Your task to perform on an android device: toggle airplane mode Image 0: 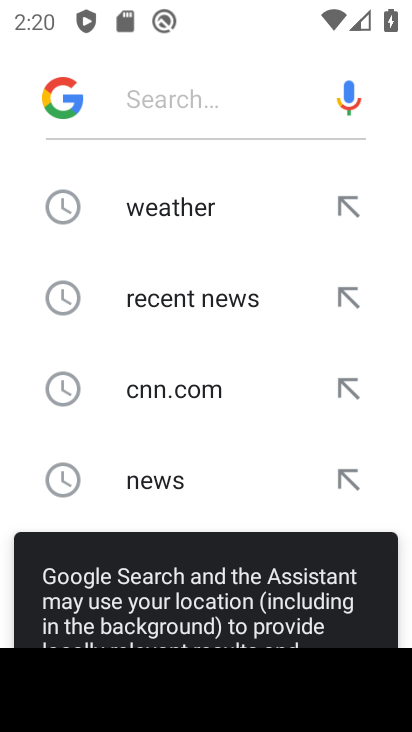
Step 0: press home button
Your task to perform on an android device: toggle airplane mode Image 1: 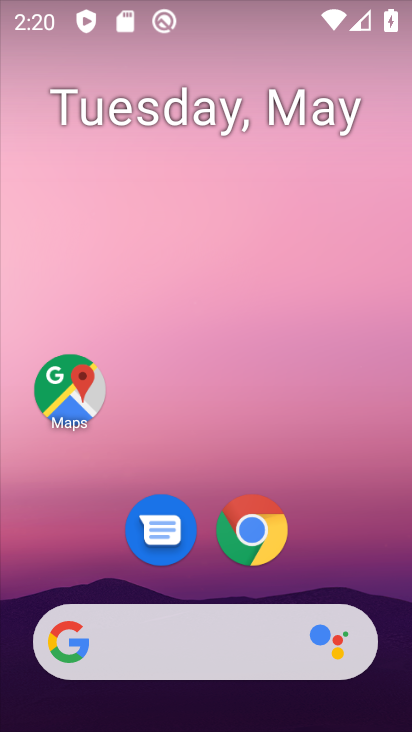
Step 1: drag from (184, 577) to (237, 152)
Your task to perform on an android device: toggle airplane mode Image 2: 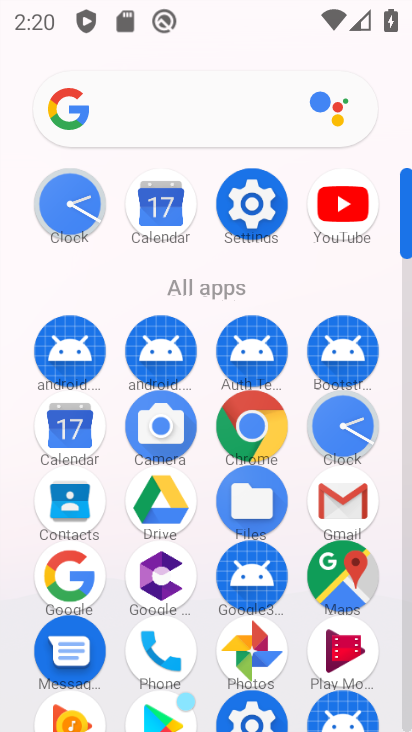
Step 2: click (231, 180)
Your task to perform on an android device: toggle airplane mode Image 3: 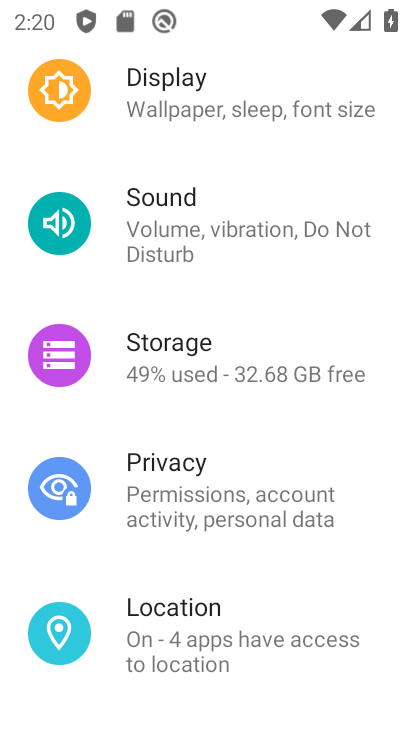
Step 3: drag from (229, 182) to (263, 579)
Your task to perform on an android device: toggle airplane mode Image 4: 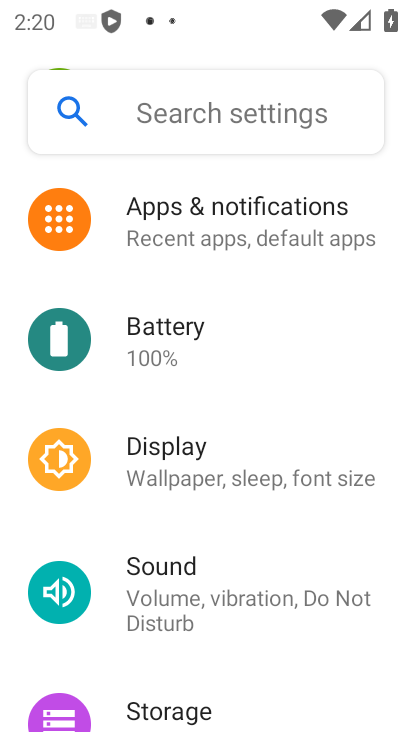
Step 4: drag from (216, 262) to (215, 623)
Your task to perform on an android device: toggle airplane mode Image 5: 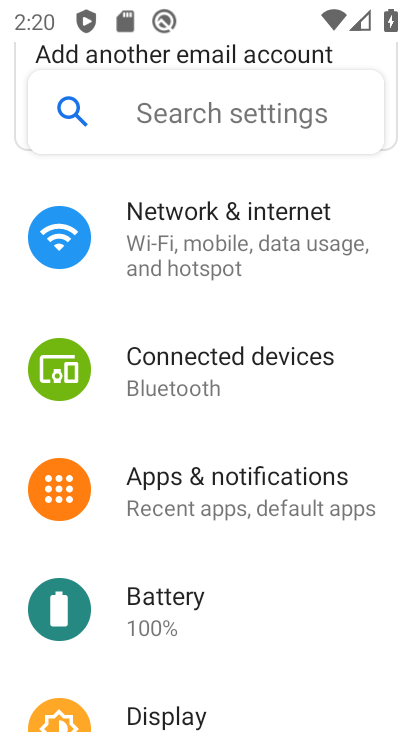
Step 5: click (199, 227)
Your task to perform on an android device: toggle airplane mode Image 6: 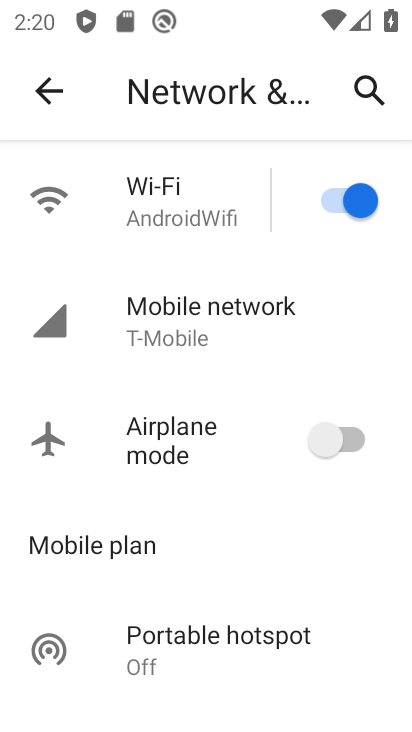
Step 6: click (362, 432)
Your task to perform on an android device: toggle airplane mode Image 7: 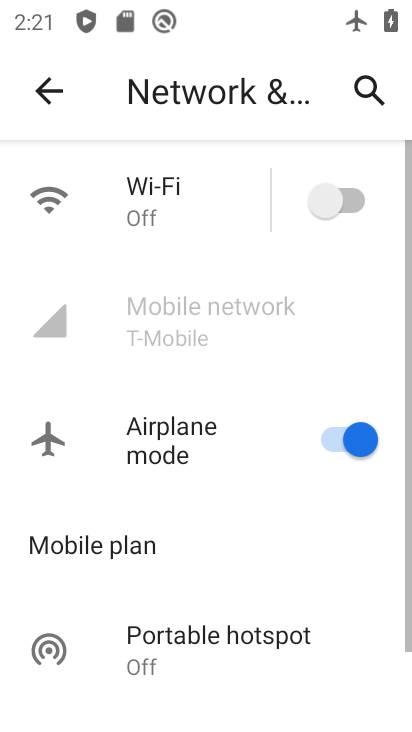
Step 7: task complete